Your task to perform on an android device: Go to Yahoo.com Image 0: 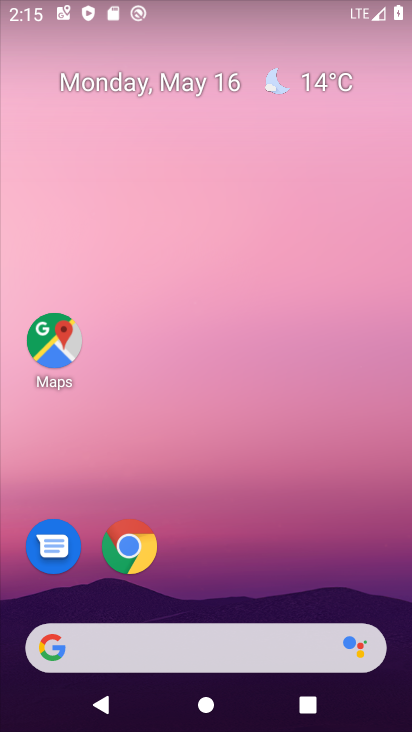
Step 0: drag from (232, 658) to (242, 161)
Your task to perform on an android device: Go to Yahoo.com Image 1: 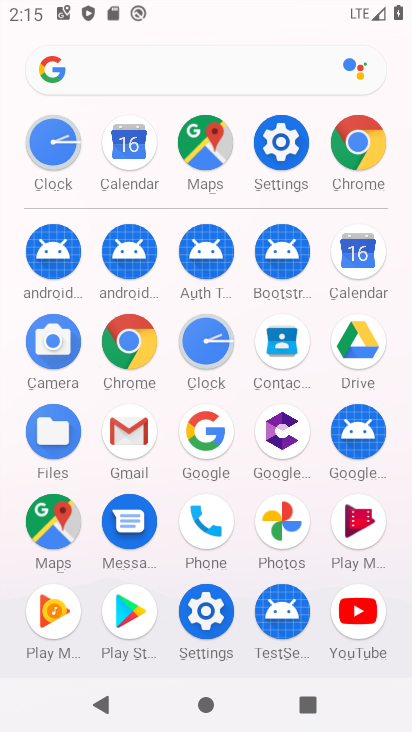
Step 1: click (342, 158)
Your task to perform on an android device: Go to Yahoo.com Image 2: 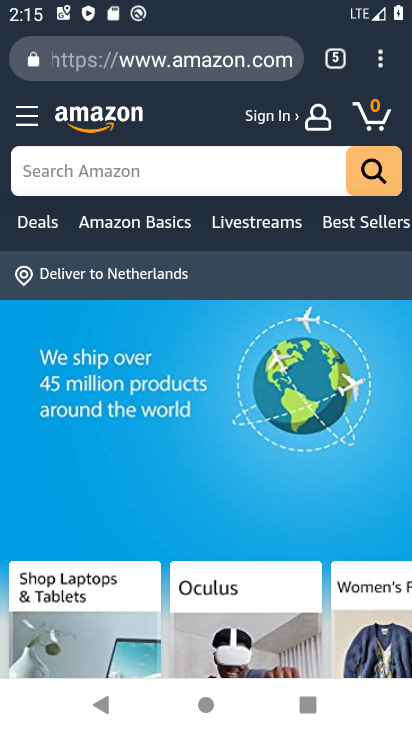
Step 2: click (168, 73)
Your task to perform on an android device: Go to Yahoo.com Image 3: 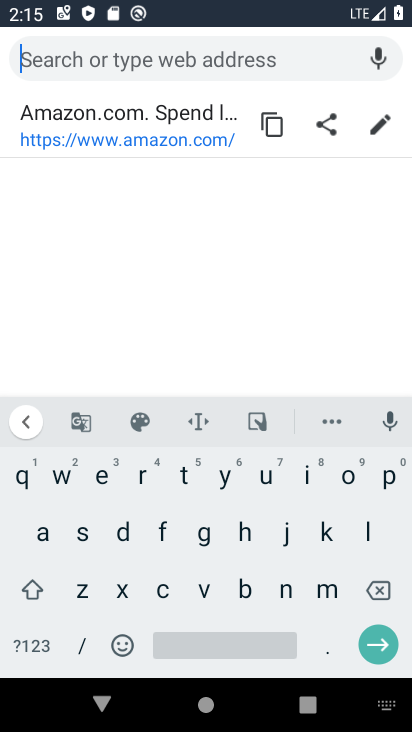
Step 3: click (221, 482)
Your task to perform on an android device: Go to Yahoo.com Image 4: 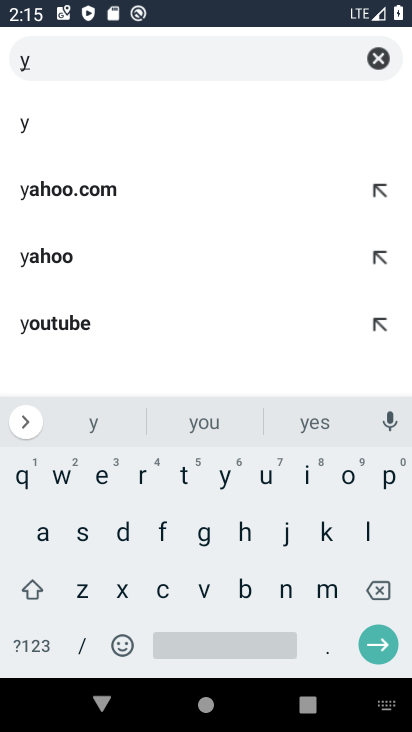
Step 4: click (96, 183)
Your task to perform on an android device: Go to Yahoo.com Image 5: 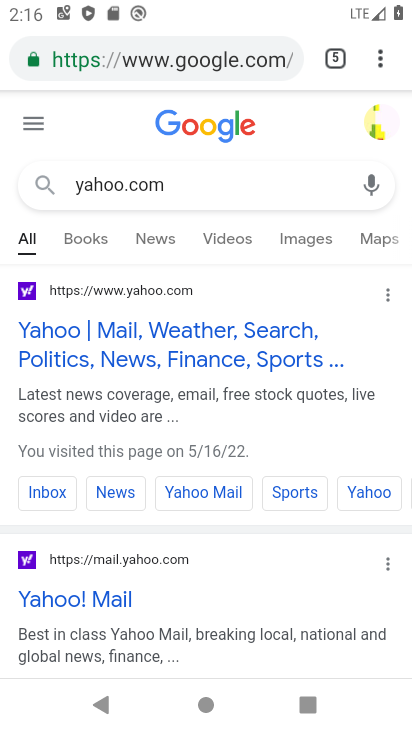
Step 5: click (93, 339)
Your task to perform on an android device: Go to Yahoo.com Image 6: 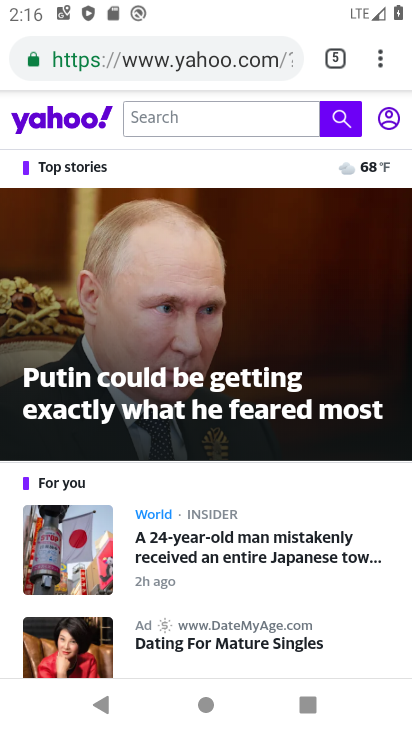
Step 6: task complete